Your task to perform on an android device: empty trash in the gmail app Image 0: 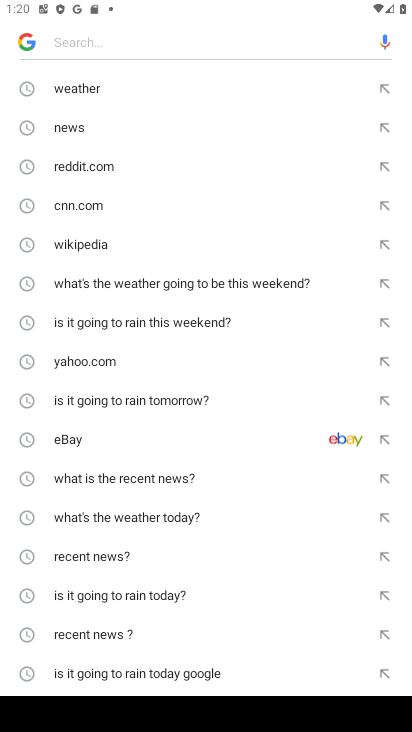
Step 0: press home button
Your task to perform on an android device: empty trash in the gmail app Image 1: 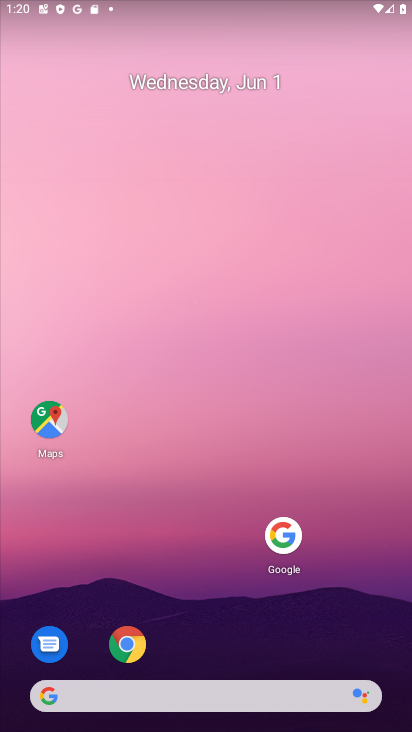
Step 1: drag from (165, 696) to (268, 197)
Your task to perform on an android device: empty trash in the gmail app Image 2: 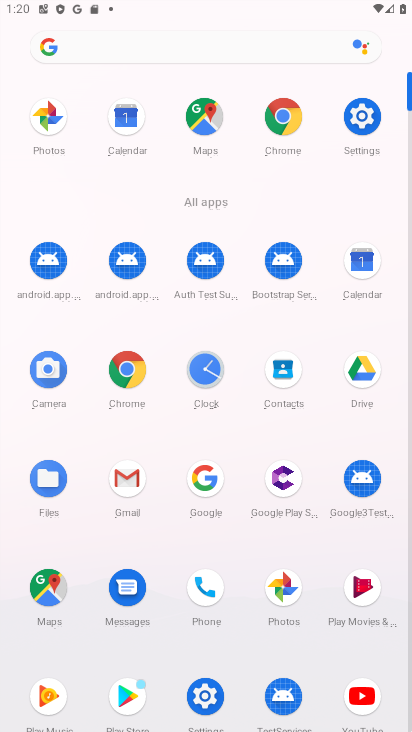
Step 2: click (131, 480)
Your task to perform on an android device: empty trash in the gmail app Image 3: 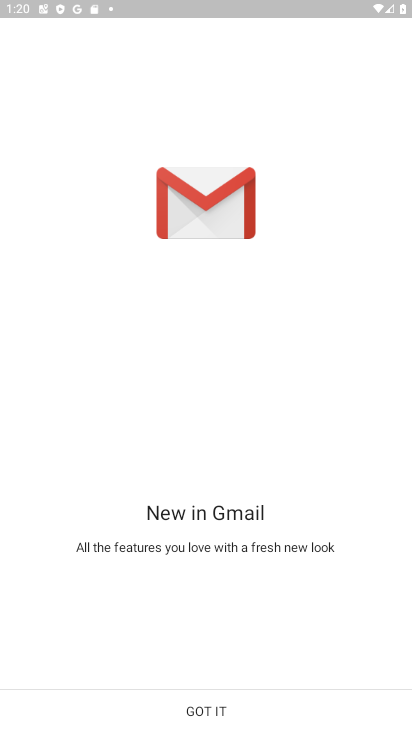
Step 3: click (202, 707)
Your task to perform on an android device: empty trash in the gmail app Image 4: 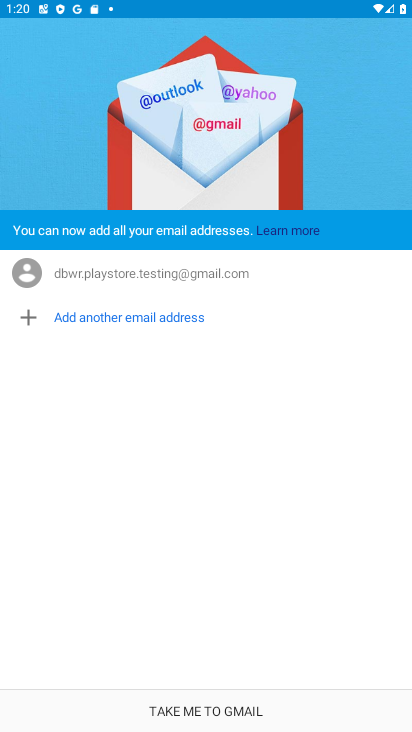
Step 4: click (202, 707)
Your task to perform on an android device: empty trash in the gmail app Image 5: 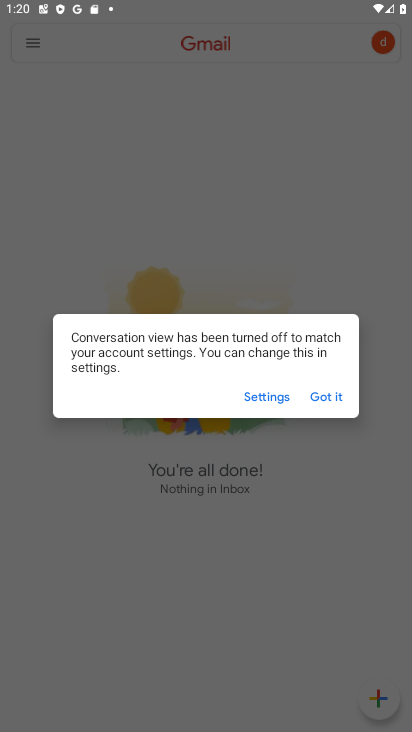
Step 5: click (327, 402)
Your task to perform on an android device: empty trash in the gmail app Image 6: 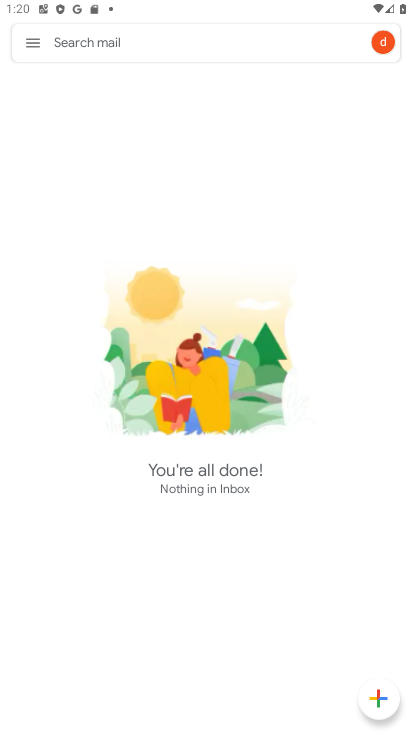
Step 6: click (33, 39)
Your task to perform on an android device: empty trash in the gmail app Image 7: 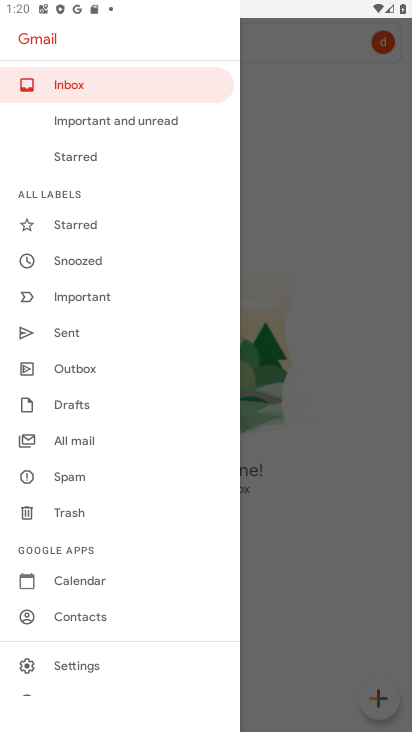
Step 7: click (61, 505)
Your task to perform on an android device: empty trash in the gmail app Image 8: 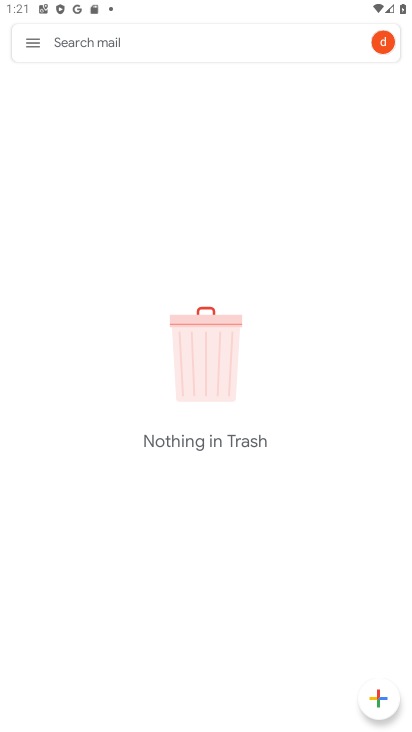
Step 8: task complete